Your task to perform on an android device: open chrome and create a bookmark for the current page Image 0: 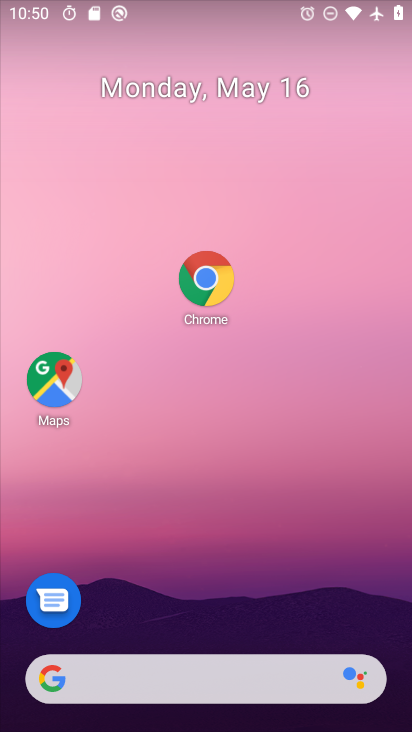
Step 0: click (212, 282)
Your task to perform on an android device: open chrome and create a bookmark for the current page Image 1: 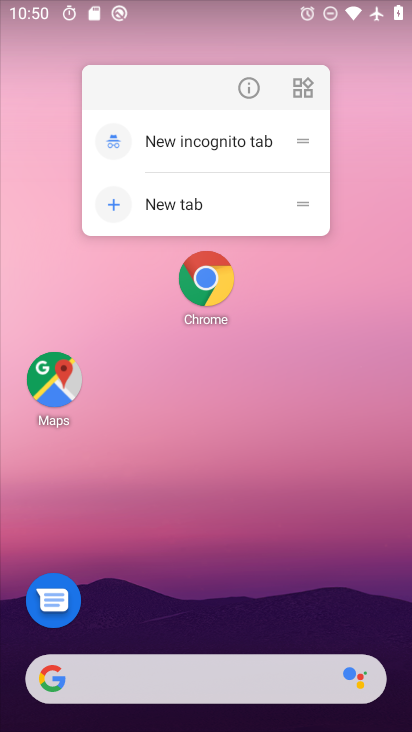
Step 1: click (208, 286)
Your task to perform on an android device: open chrome and create a bookmark for the current page Image 2: 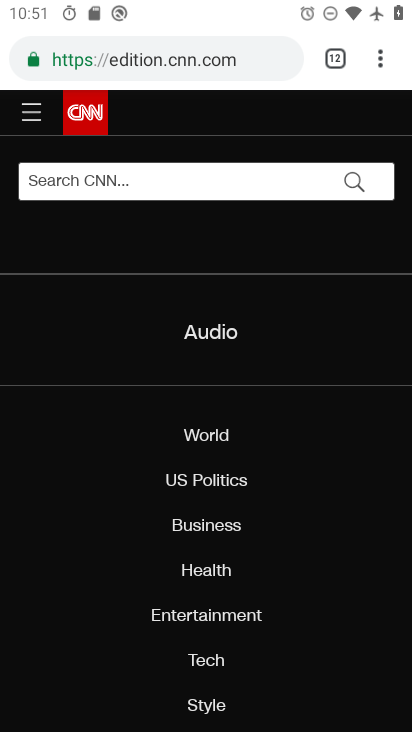
Step 2: click (377, 76)
Your task to perform on an android device: open chrome and create a bookmark for the current page Image 3: 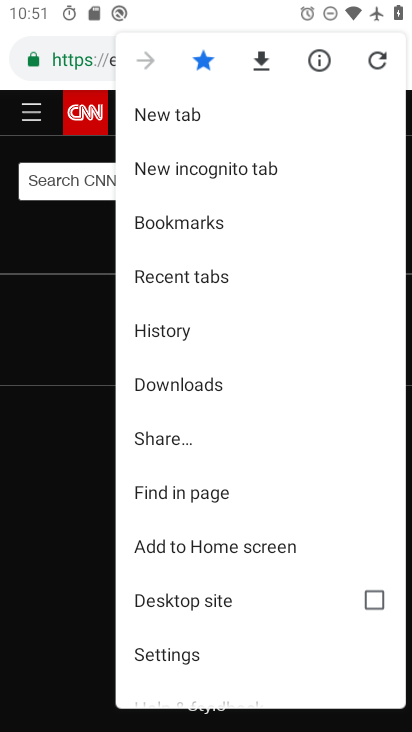
Step 3: task complete